Your task to perform on an android device: Show me productivity apps on the Play Store Image 0: 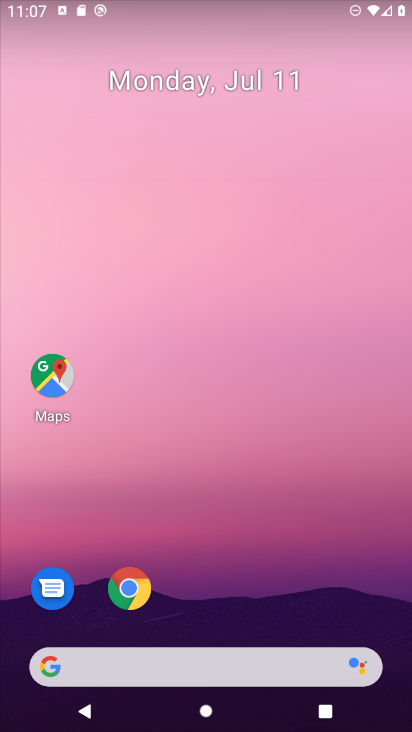
Step 0: drag from (400, 617) to (310, 133)
Your task to perform on an android device: Show me productivity apps on the Play Store Image 1: 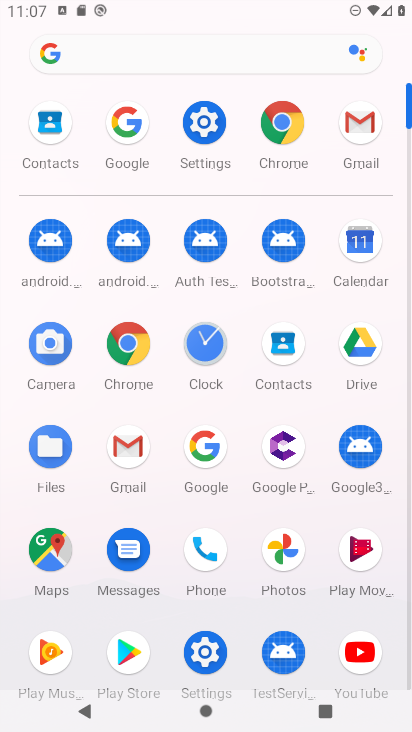
Step 1: click (125, 650)
Your task to perform on an android device: Show me productivity apps on the Play Store Image 2: 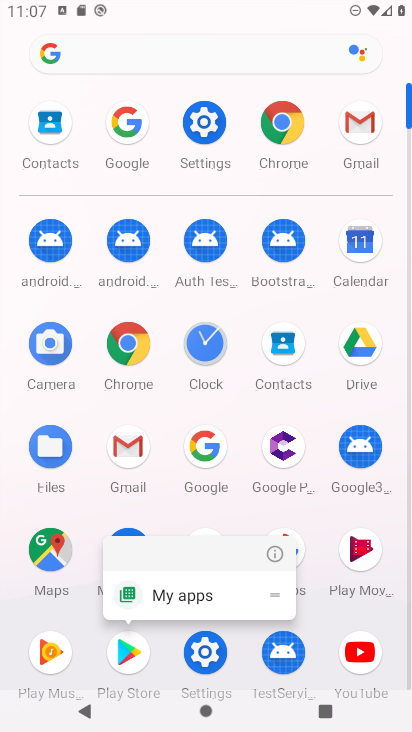
Step 2: click (131, 654)
Your task to perform on an android device: Show me productivity apps on the Play Store Image 3: 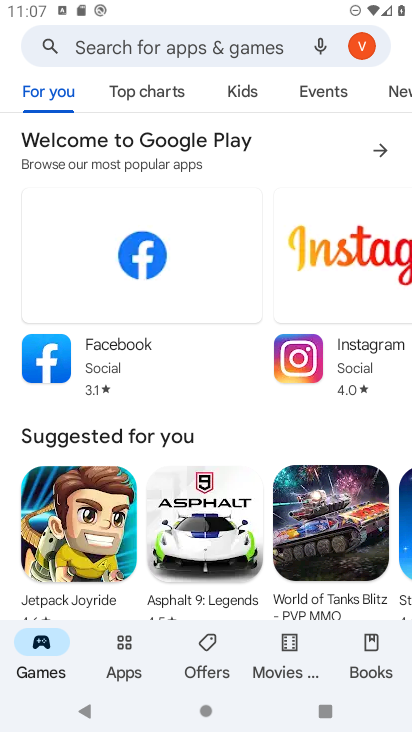
Step 3: task complete